Your task to perform on an android device: Open Chrome and go to the settings page Image 0: 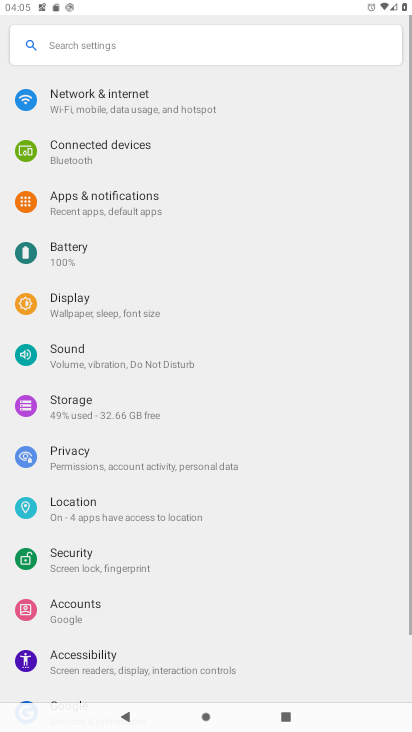
Step 0: drag from (209, 584) to (234, 107)
Your task to perform on an android device: Open Chrome and go to the settings page Image 1: 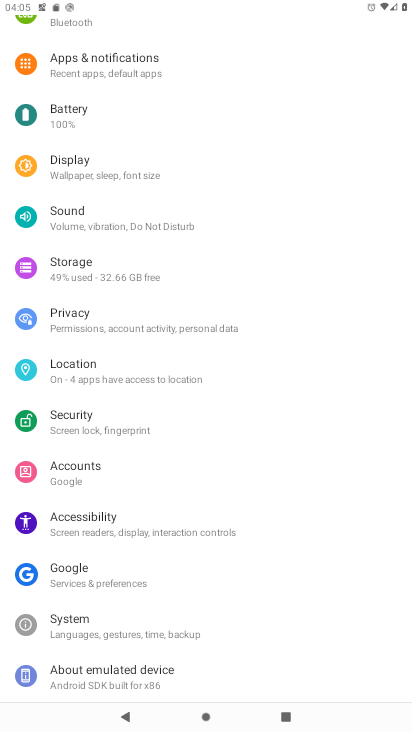
Step 1: press home button
Your task to perform on an android device: Open Chrome and go to the settings page Image 2: 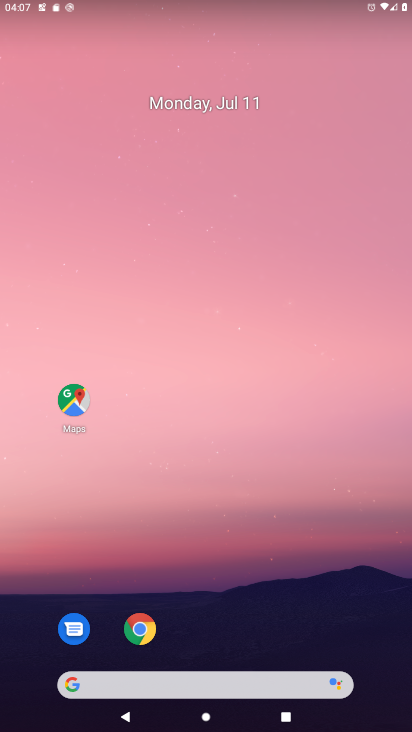
Step 2: drag from (286, 650) to (365, 66)
Your task to perform on an android device: Open Chrome and go to the settings page Image 3: 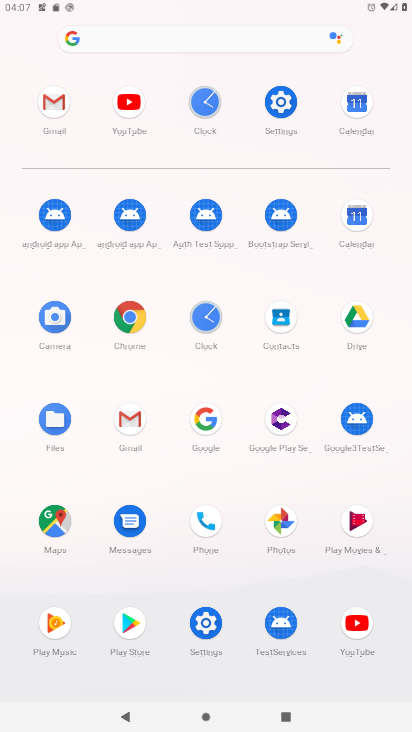
Step 3: click (267, 90)
Your task to perform on an android device: Open Chrome and go to the settings page Image 4: 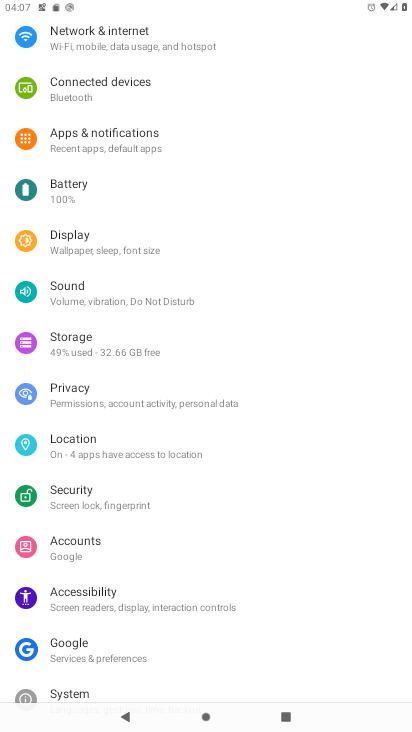
Step 4: press home button
Your task to perform on an android device: Open Chrome and go to the settings page Image 5: 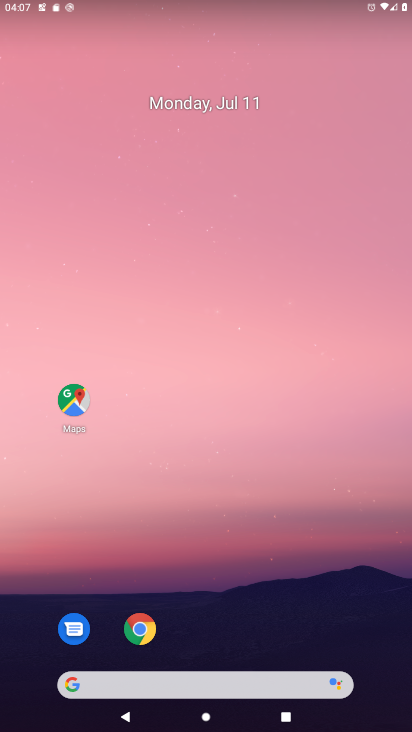
Step 5: click (141, 643)
Your task to perform on an android device: Open Chrome and go to the settings page Image 6: 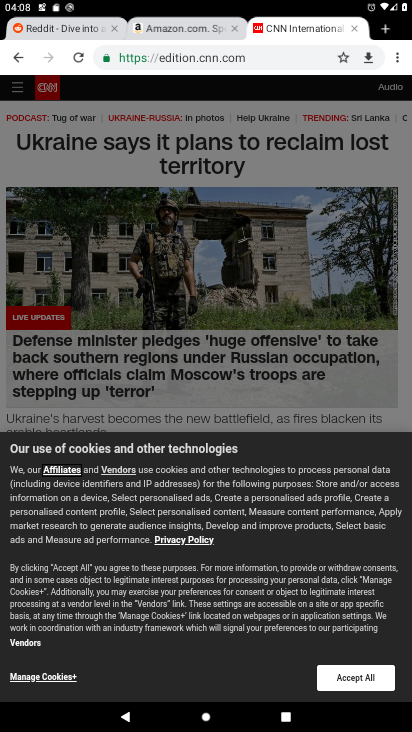
Step 6: task complete